Your task to perform on an android device: Go to Amazon Image 0: 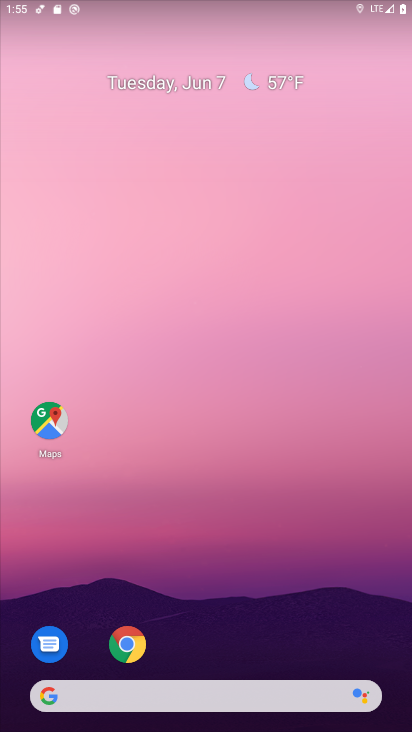
Step 0: click (127, 642)
Your task to perform on an android device: Go to Amazon Image 1: 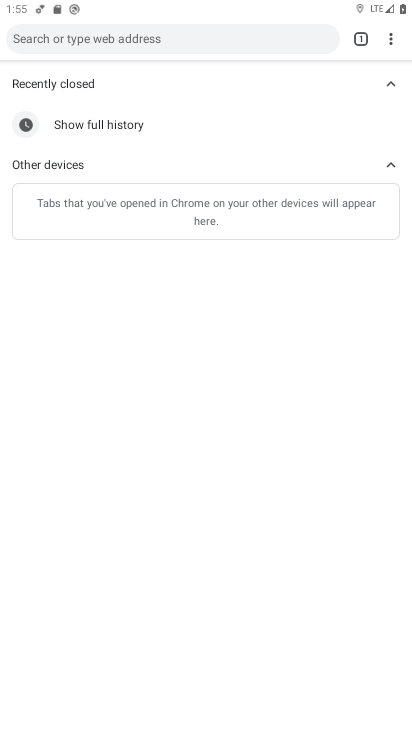
Step 1: click (179, 43)
Your task to perform on an android device: Go to Amazon Image 2: 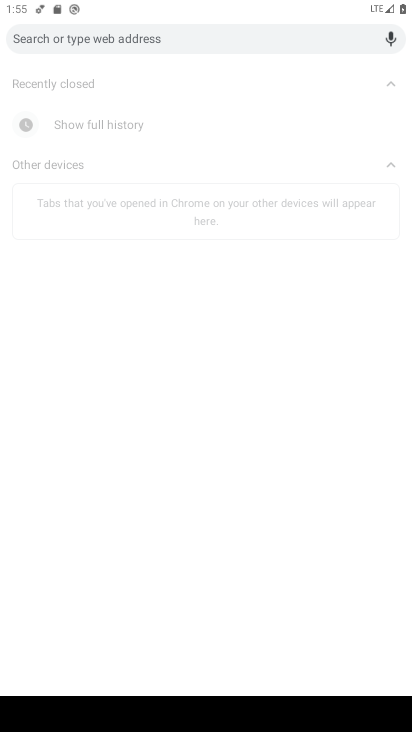
Step 2: type "amazon"
Your task to perform on an android device: Go to Amazon Image 3: 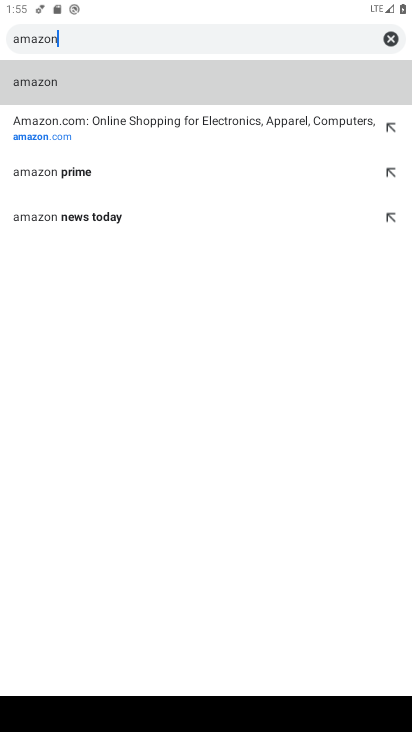
Step 3: click (174, 69)
Your task to perform on an android device: Go to Amazon Image 4: 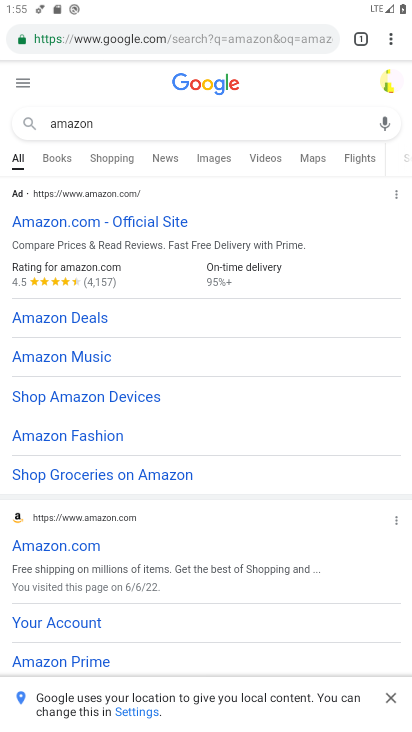
Step 4: click (89, 218)
Your task to perform on an android device: Go to Amazon Image 5: 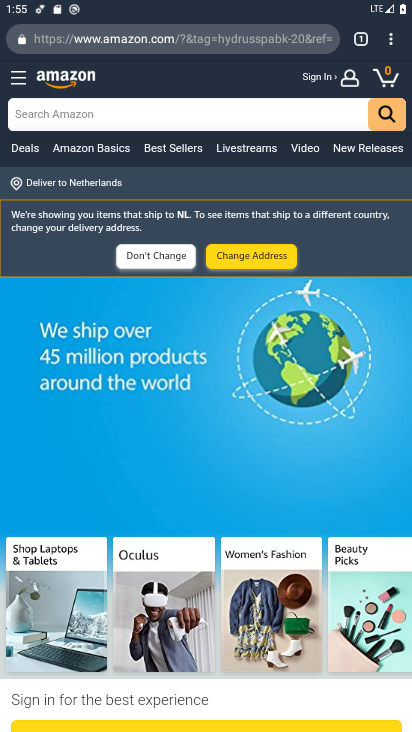
Step 5: task complete